Your task to perform on an android device: open app "TextNow: Call + Text Unlimited" Image 0: 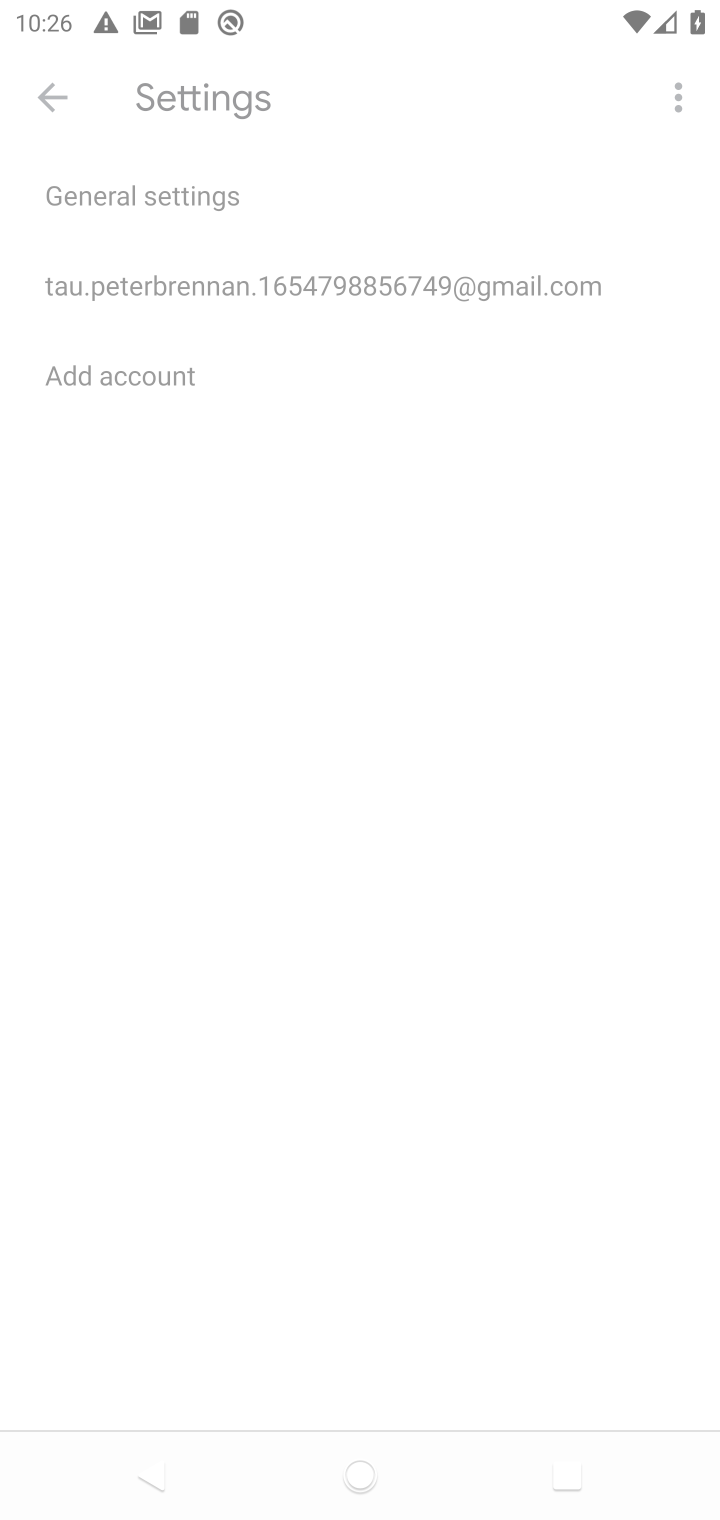
Step 0: press back button
Your task to perform on an android device: open app "TextNow: Call + Text Unlimited" Image 1: 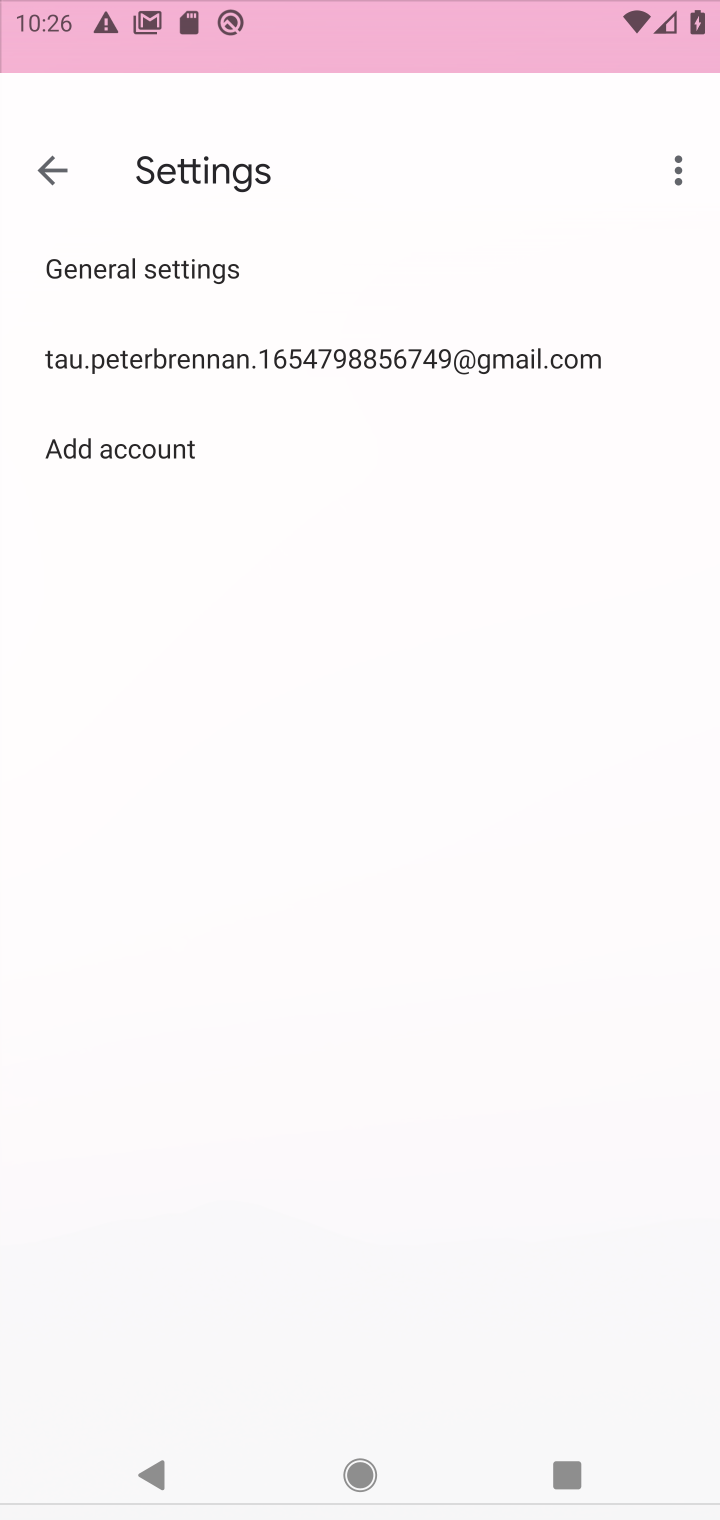
Step 1: press back button
Your task to perform on an android device: open app "TextNow: Call + Text Unlimited" Image 2: 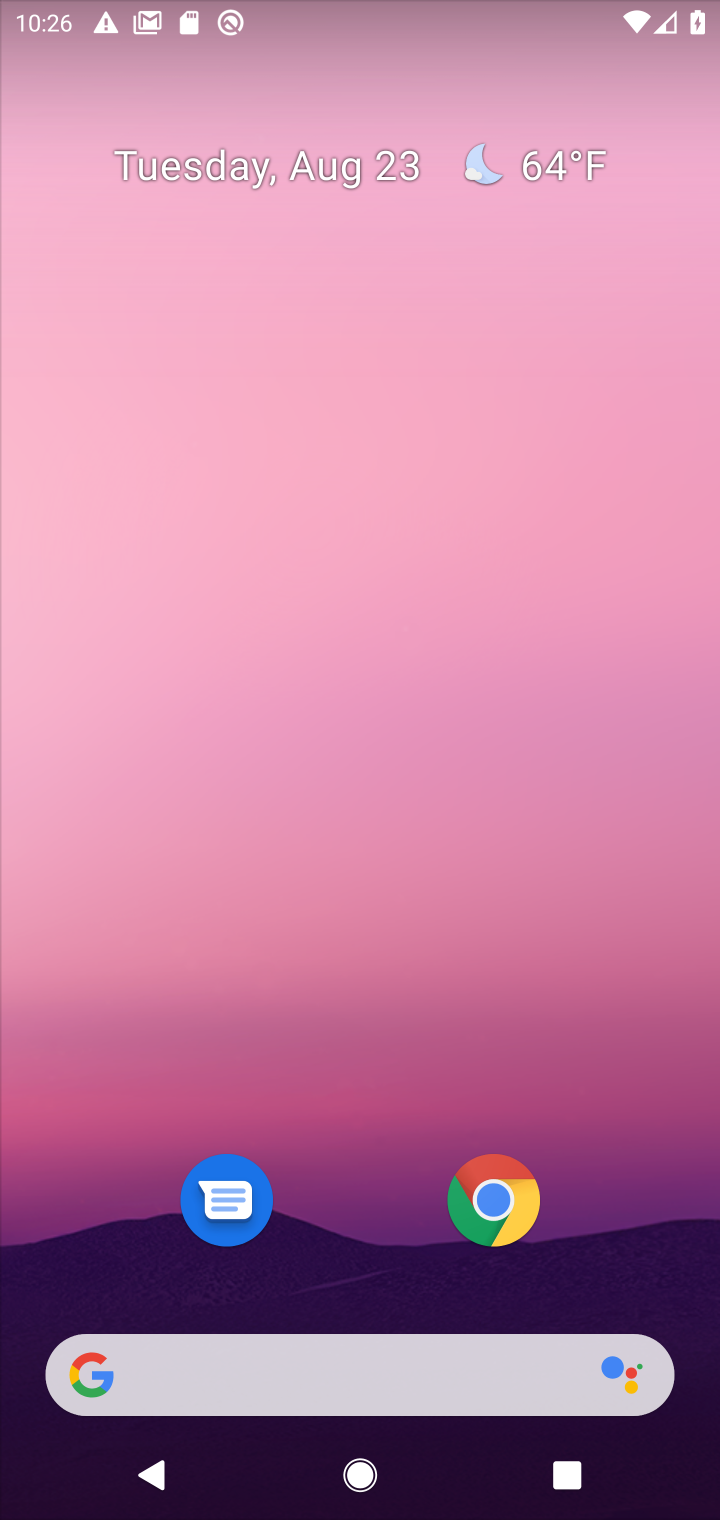
Step 2: click (646, 1338)
Your task to perform on an android device: open app "TextNow: Call + Text Unlimited" Image 3: 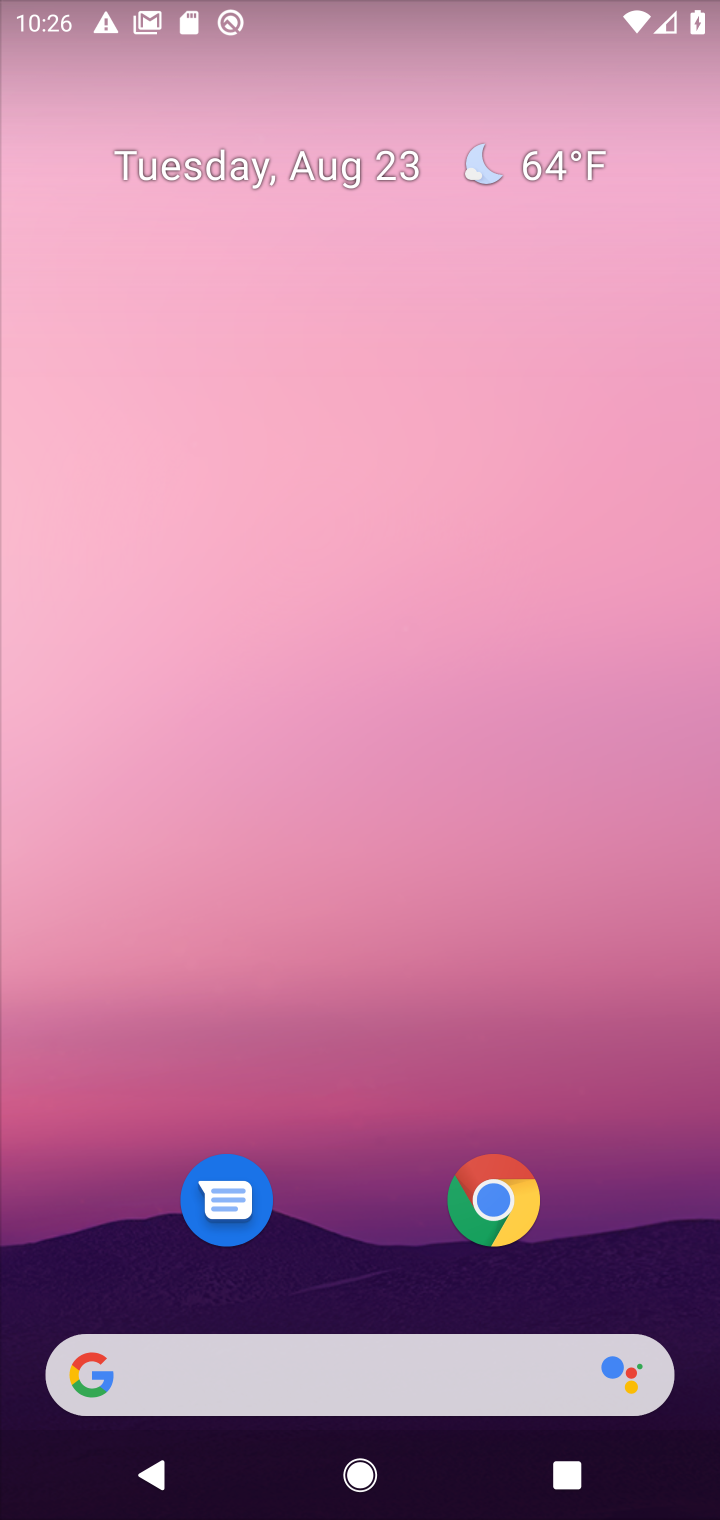
Step 3: drag from (424, 1309) to (223, 0)
Your task to perform on an android device: open app "TextNow: Call + Text Unlimited" Image 4: 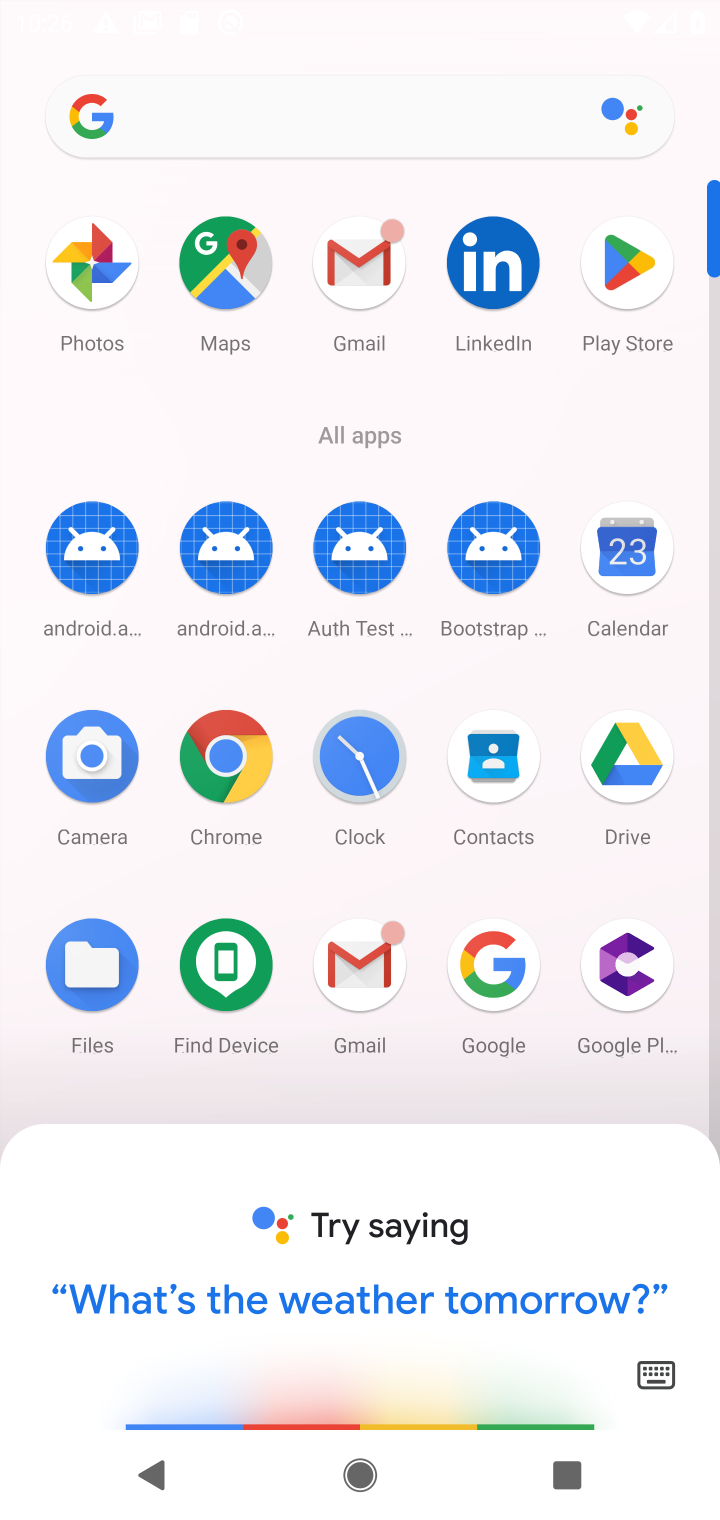
Step 4: click (648, 267)
Your task to perform on an android device: open app "TextNow: Call + Text Unlimited" Image 5: 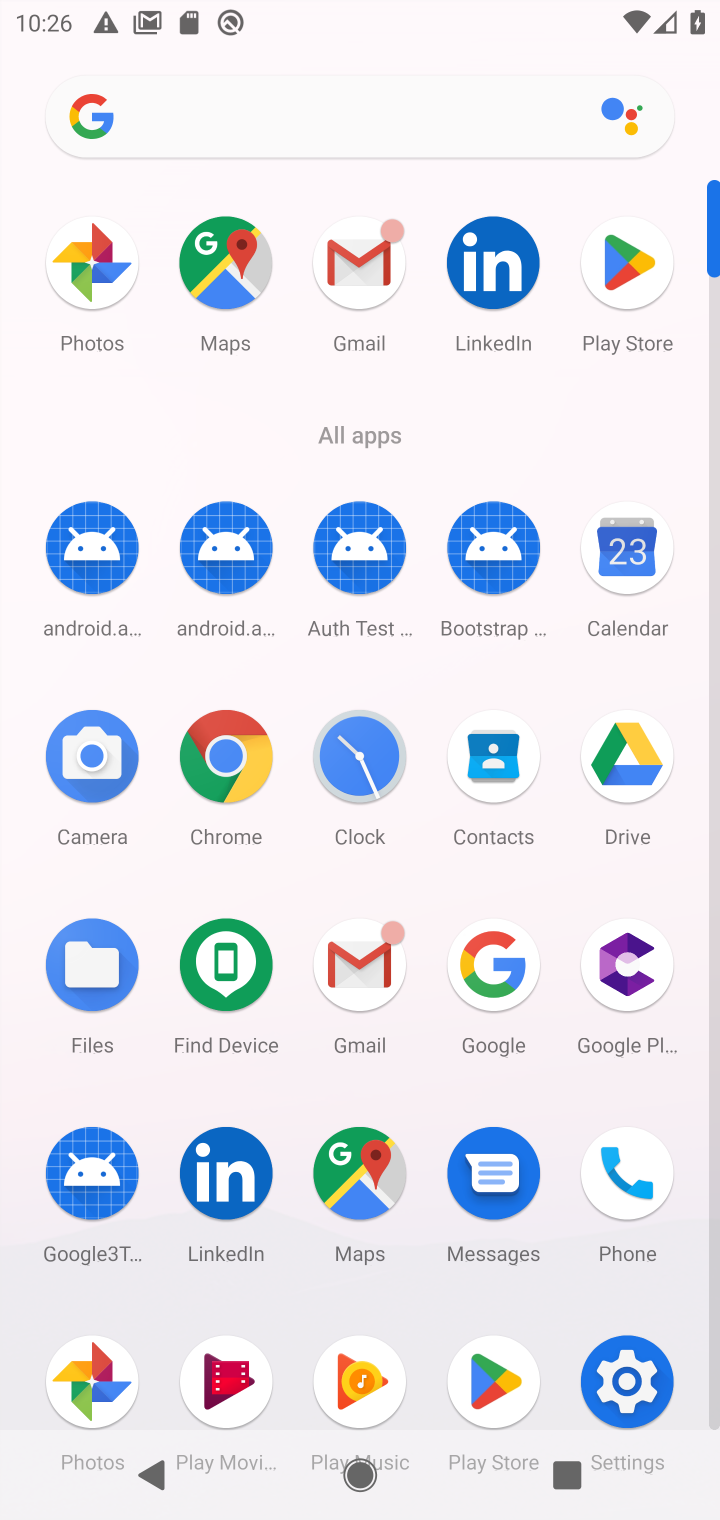
Step 5: click (612, 280)
Your task to perform on an android device: open app "TextNow: Call + Text Unlimited" Image 6: 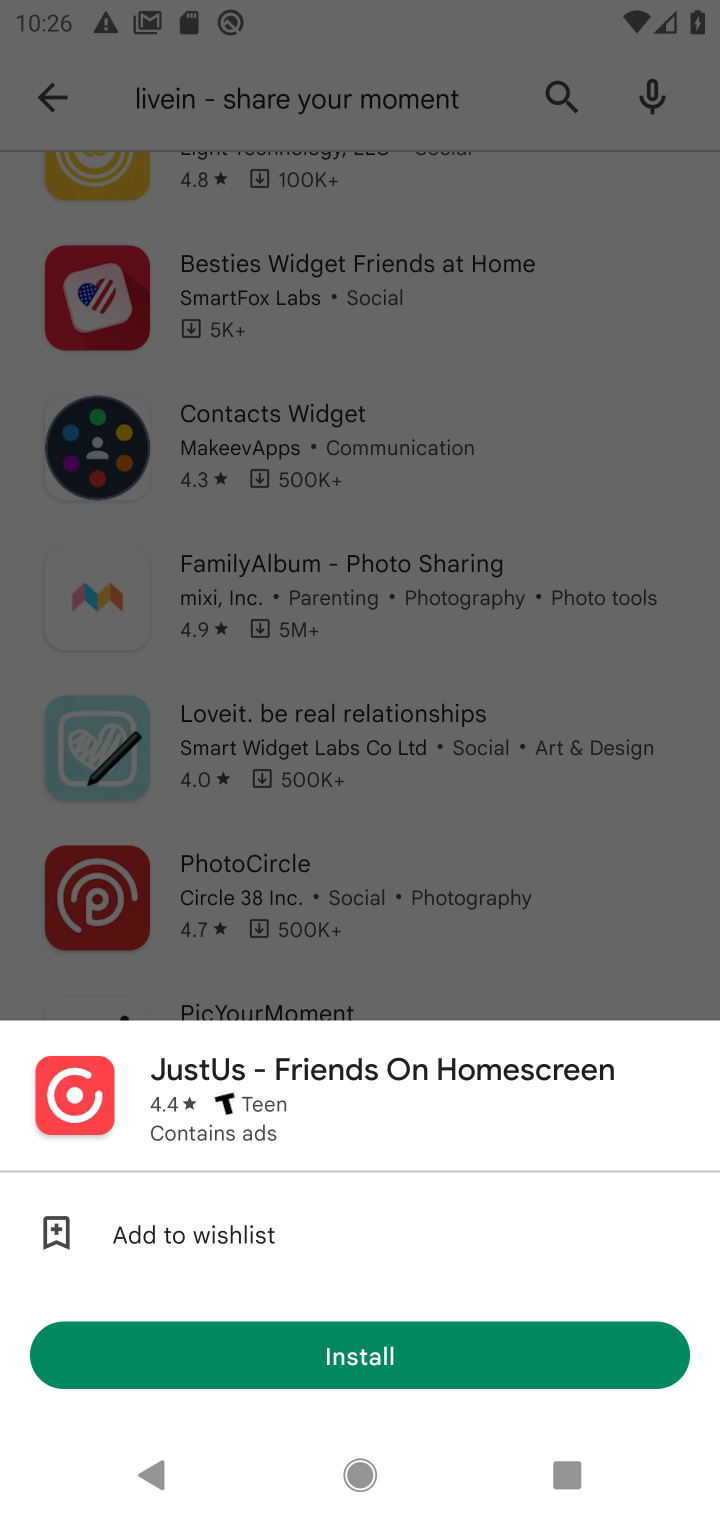
Step 6: click (67, 84)
Your task to perform on an android device: open app "TextNow: Call + Text Unlimited" Image 7: 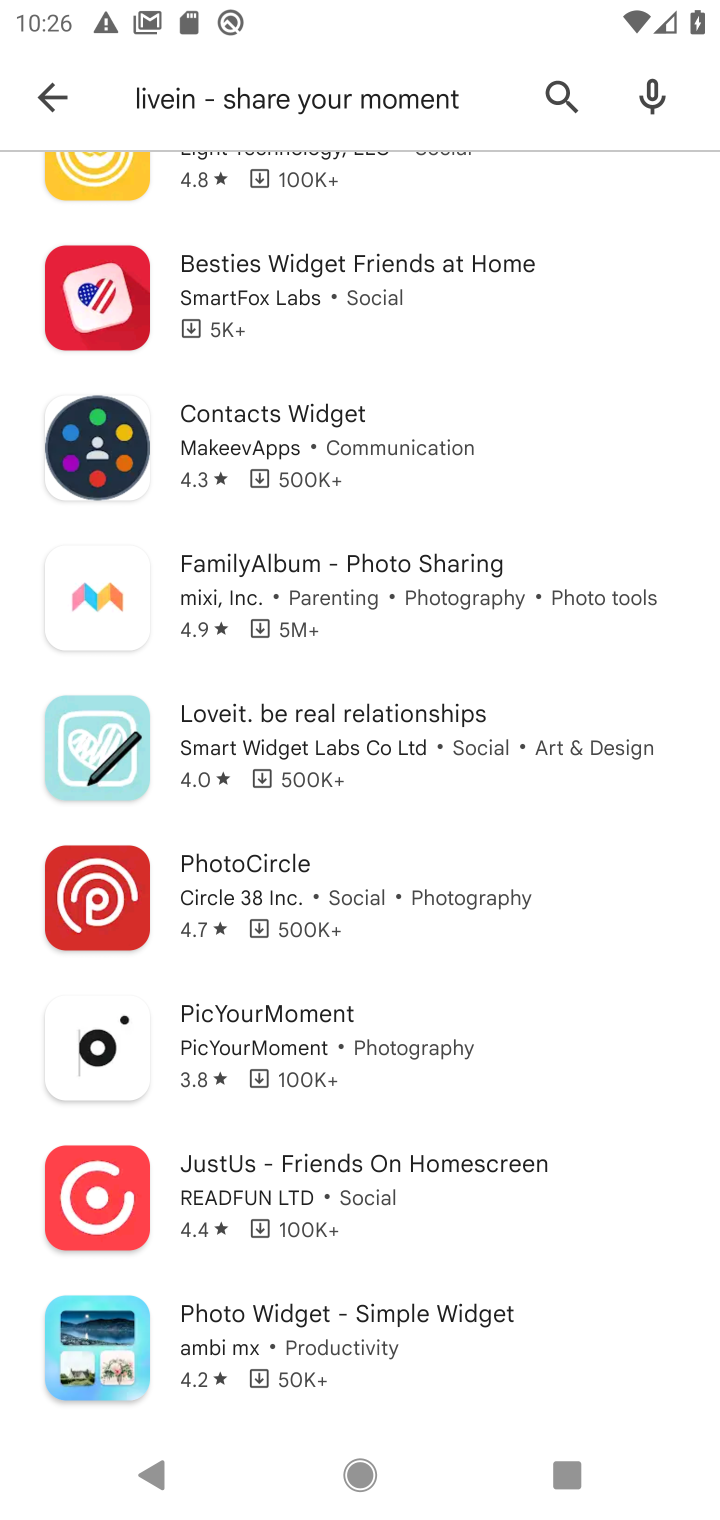
Step 7: press back button
Your task to perform on an android device: open app "TextNow: Call + Text Unlimited" Image 8: 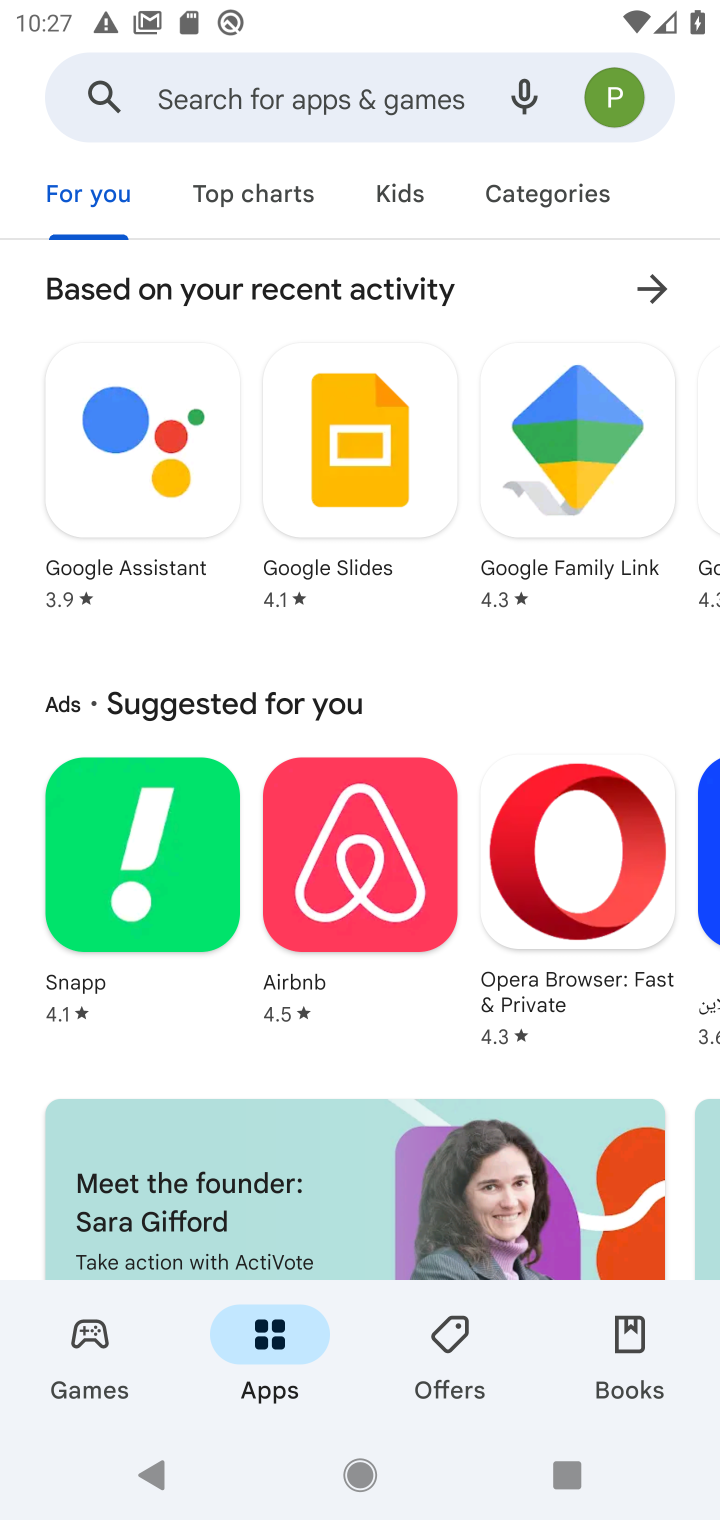
Step 8: click (340, 113)
Your task to perform on an android device: open app "TextNow: Call + Text Unlimited" Image 9: 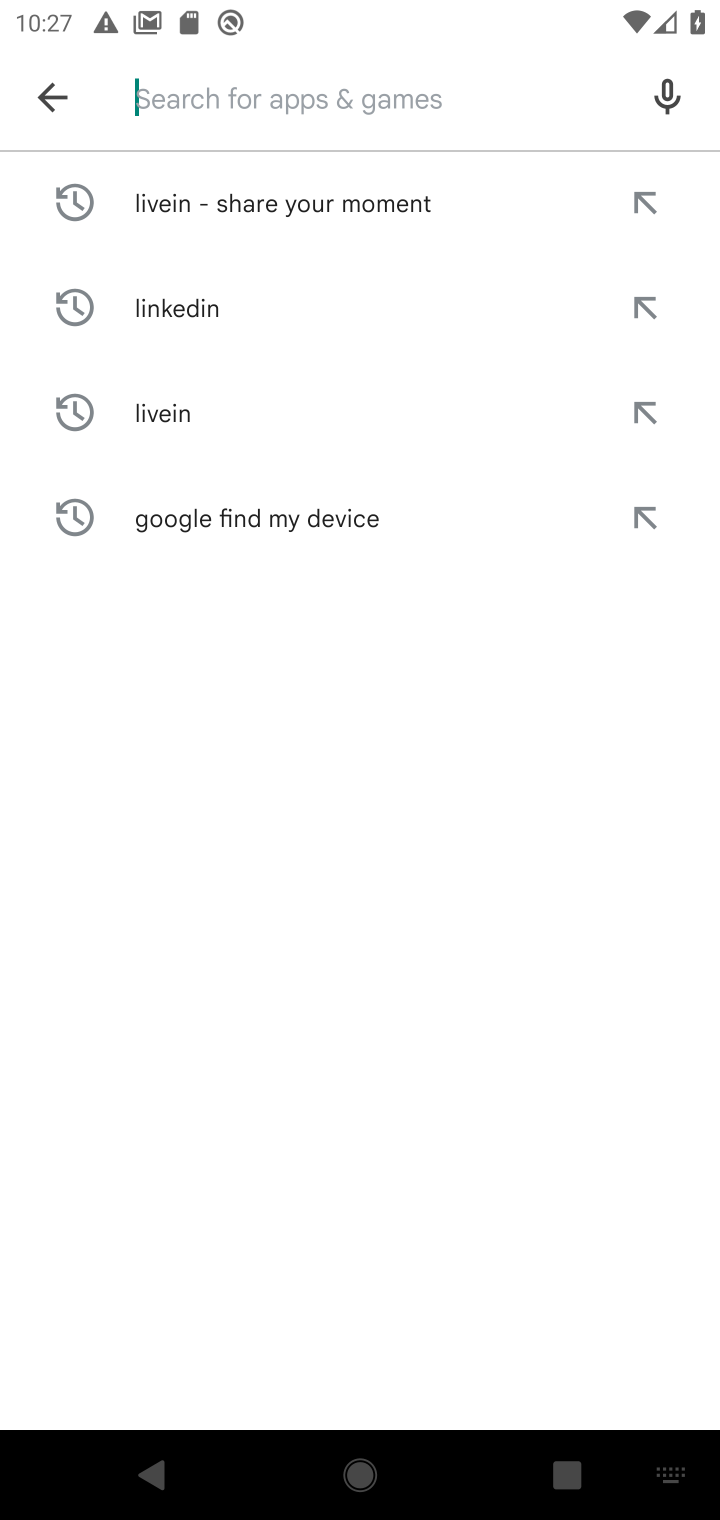
Step 9: drag from (529, 1517) to (659, 1510)
Your task to perform on an android device: open app "TextNow: Call + Text Unlimited" Image 10: 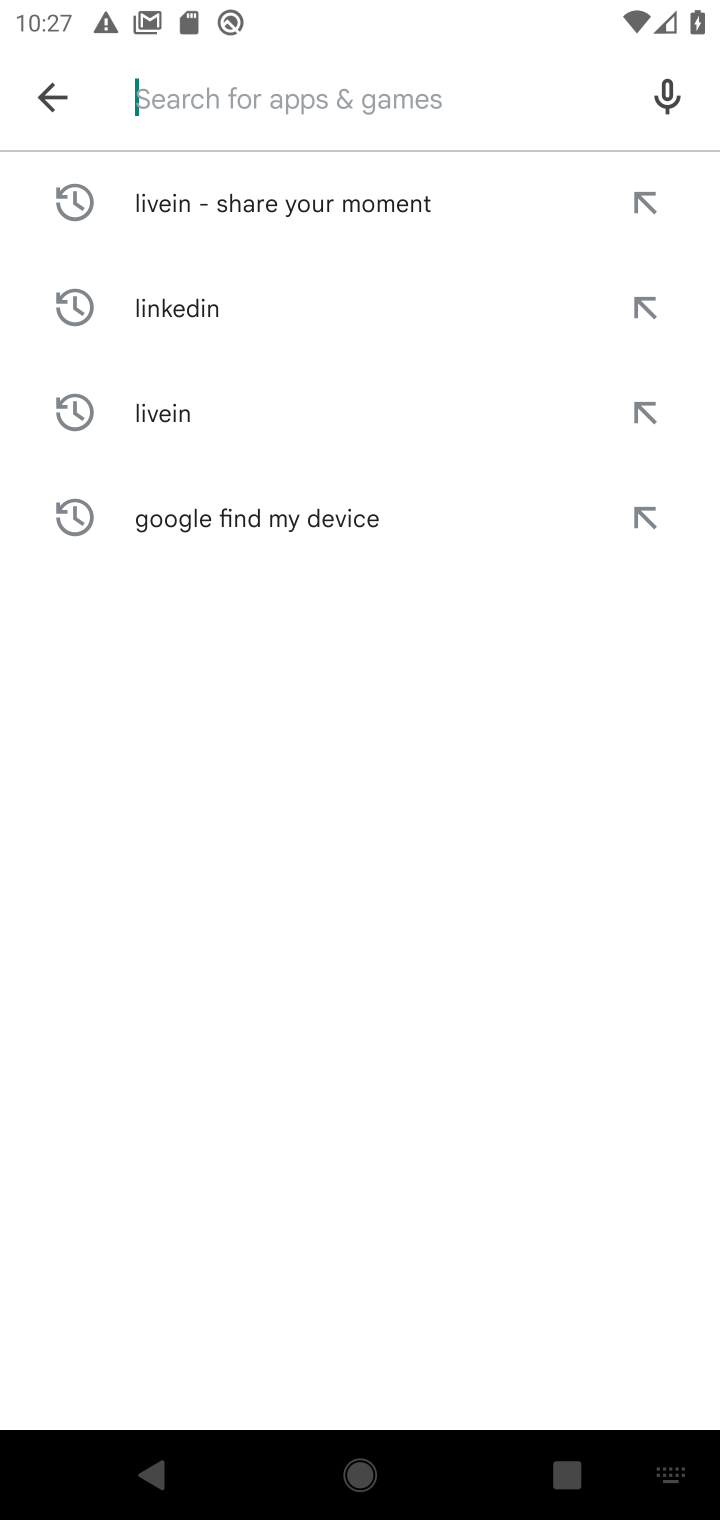
Step 10: type "TextNow: Call + Text Unlimited"
Your task to perform on an android device: open app "TextNow: Call + Text Unlimited" Image 11: 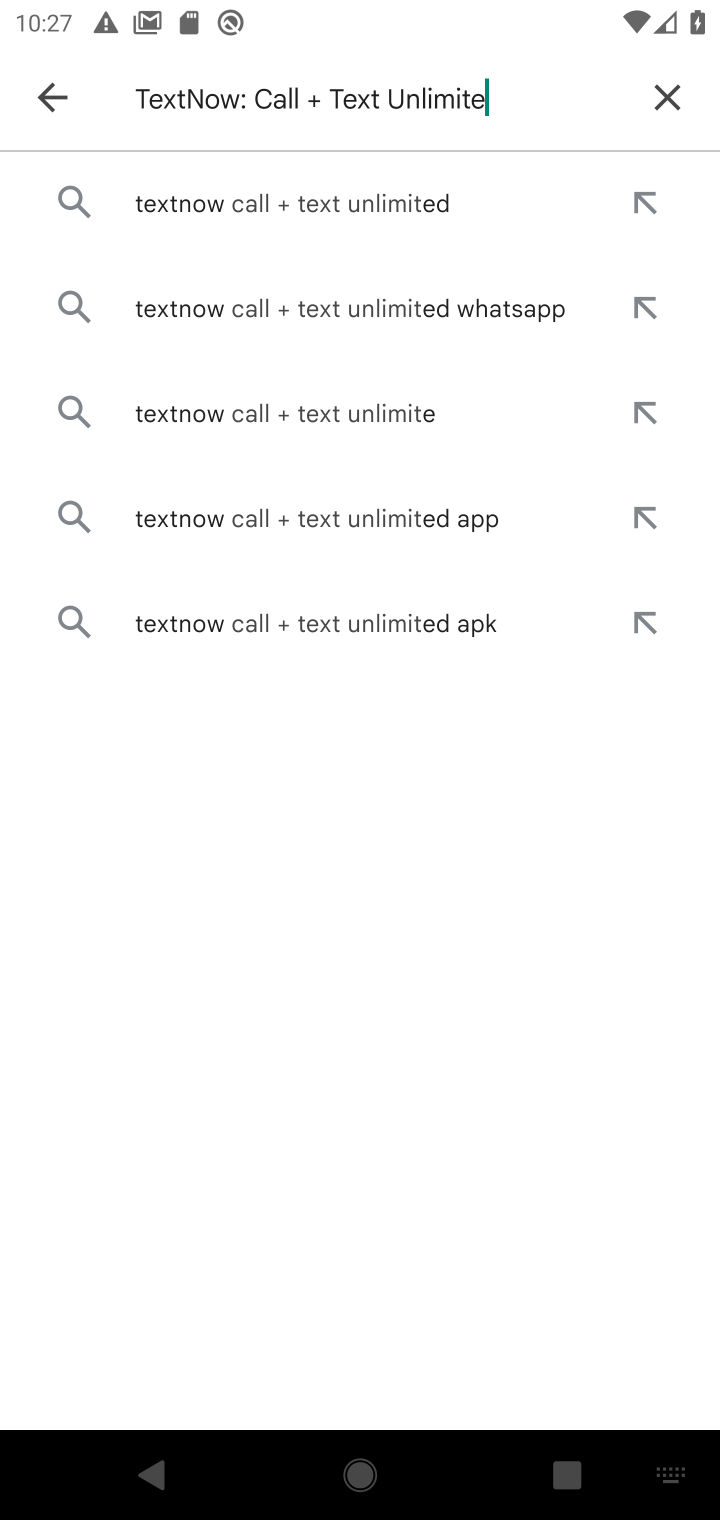
Step 11: drag from (659, 1510) to (719, 320)
Your task to perform on an android device: open app "TextNow: Call + Text Unlimited" Image 12: 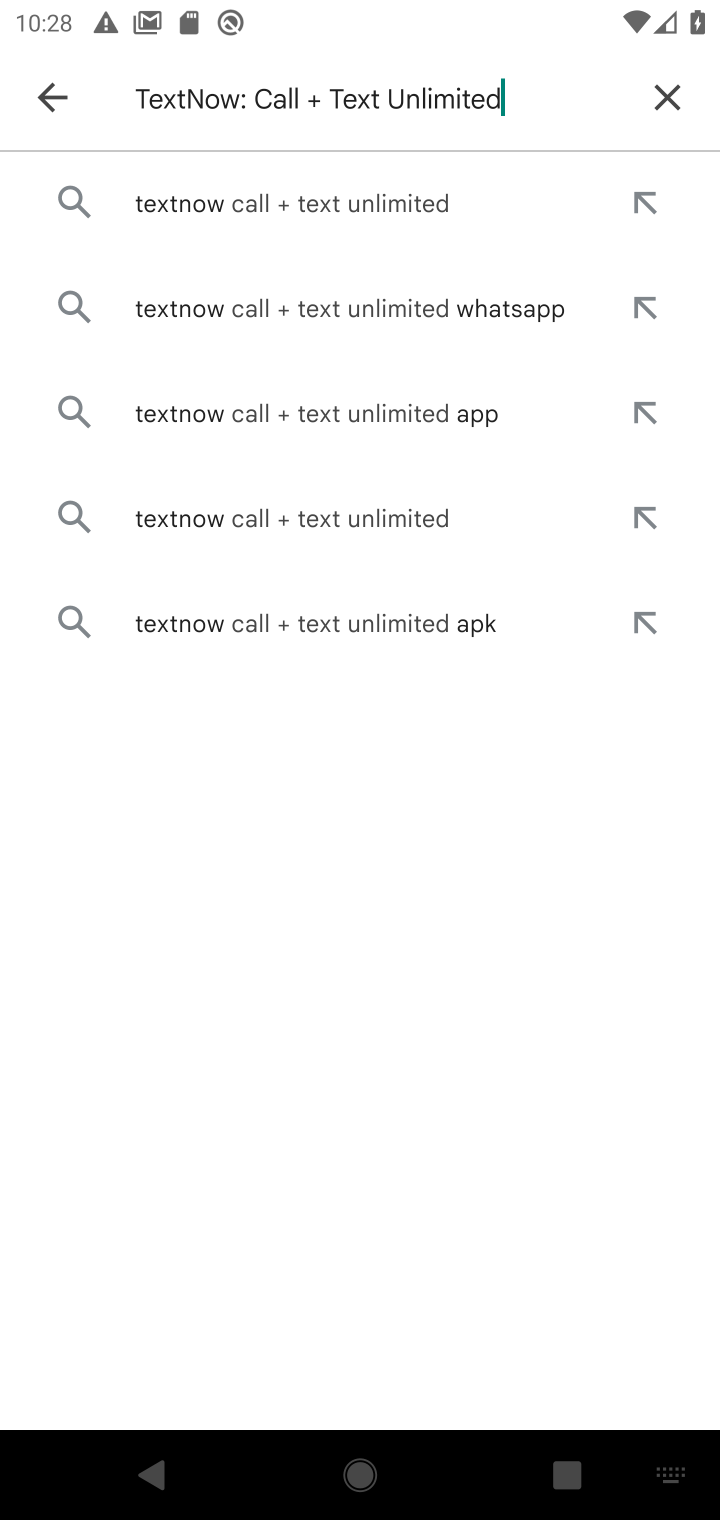
Step 12: click (410, 194)
Your task to perform on an android device: open app "TextNow: Call + Text Unlimited" Image 13: 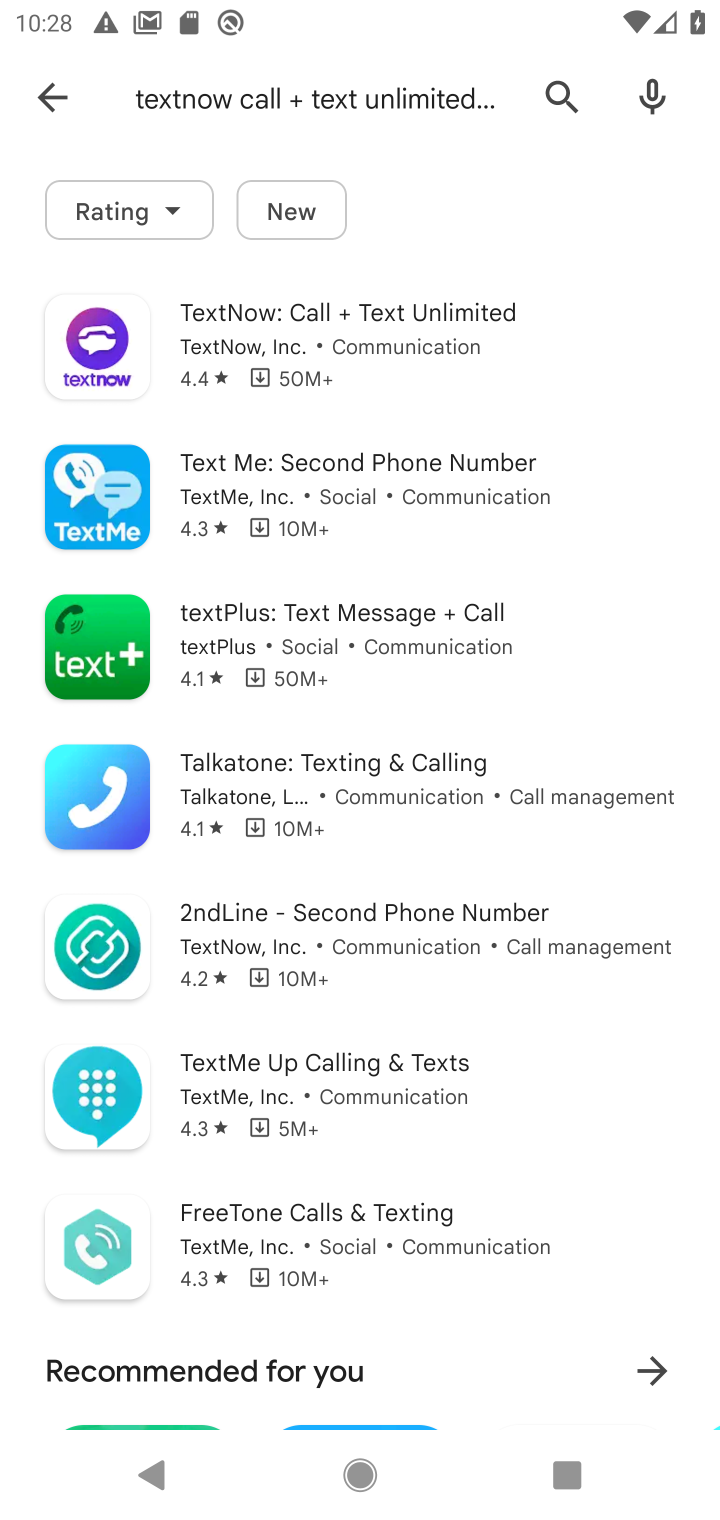
Step 13: click (377, 351)
Your task to perform on an android device: open app "TextNow: Call + Text Unlimited" Image 14: 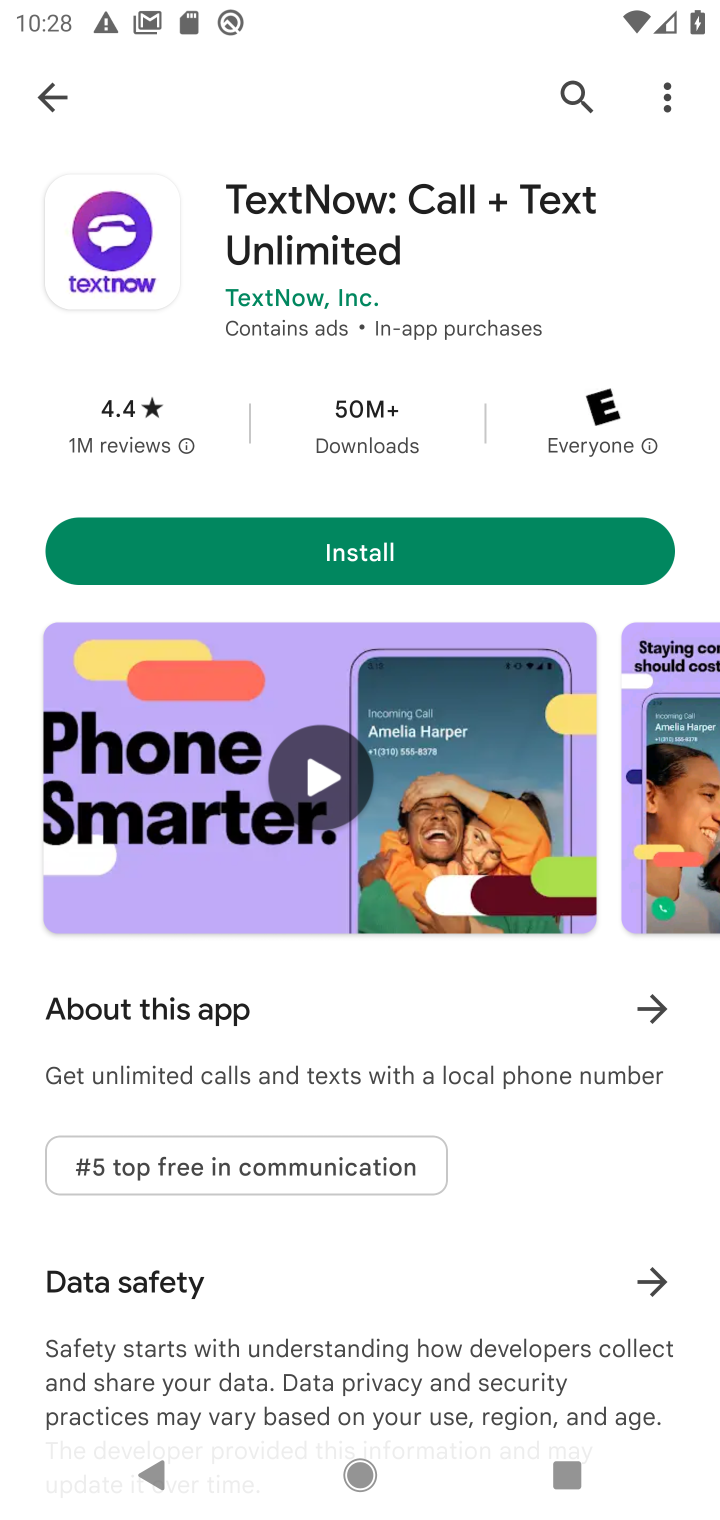
Step 14: task complete